Your task to perform on an android device: toggle javascript in the chrome app Image 0: 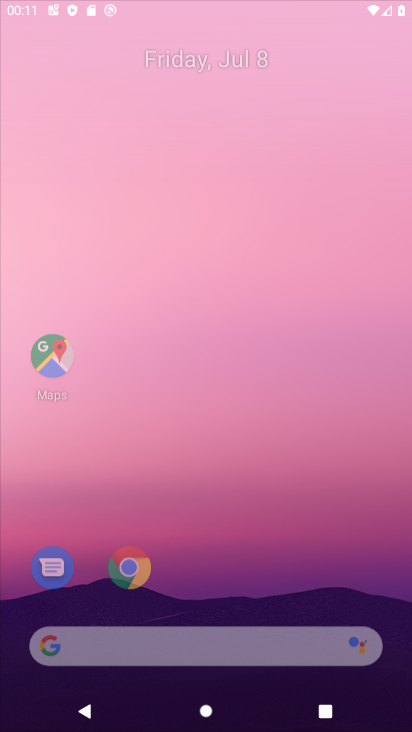
Step 0: click (191, 271)
Your task to perform on an android device: toggle javascript in the chrome app Image 1: 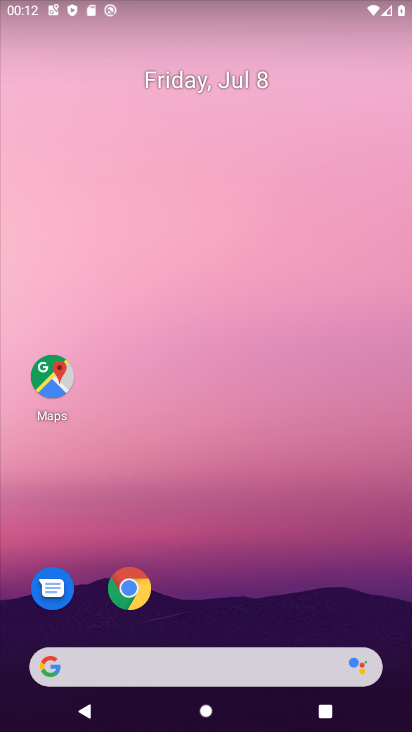
Step 1: drag from (183, 582) to (276, 215)
Your task to perform on an android device: toggle javascript in the chrome app Image 2: 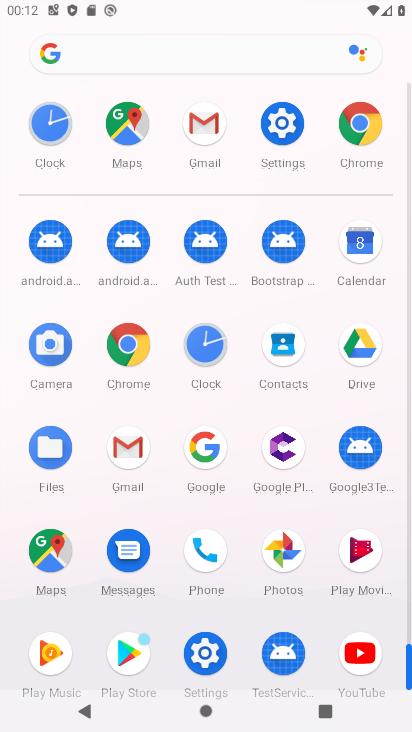
Step 2: drag from (246, 632) to (241, 204)
Your task to perform on an android device: toggle javascript in the chrome app Image 3: 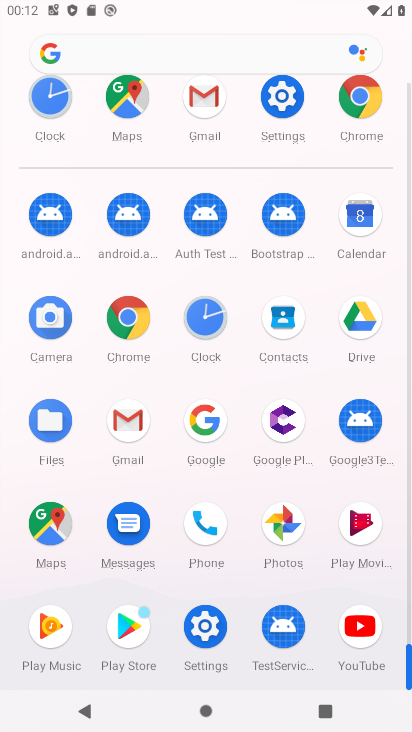
Step 3: click (360, 89)
Your task to perform on an android device: toggle javascript in the chrome app Image 4: 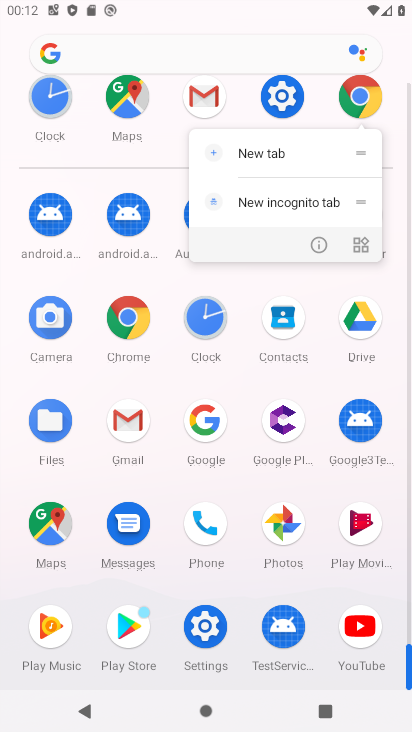
Step 4: click (308, 243)
Your task to perform on an android device: toggle javascript in the chrome app Image 5: 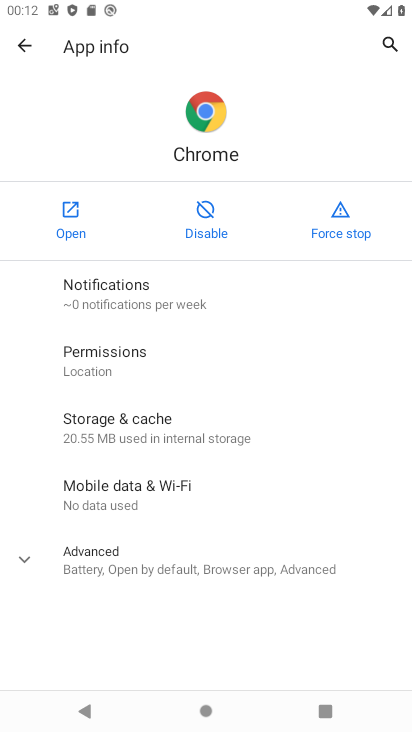
Step 5: click (63, 225)
Your task to perform on an android device: toggle javascript in the chrome app Image 6: 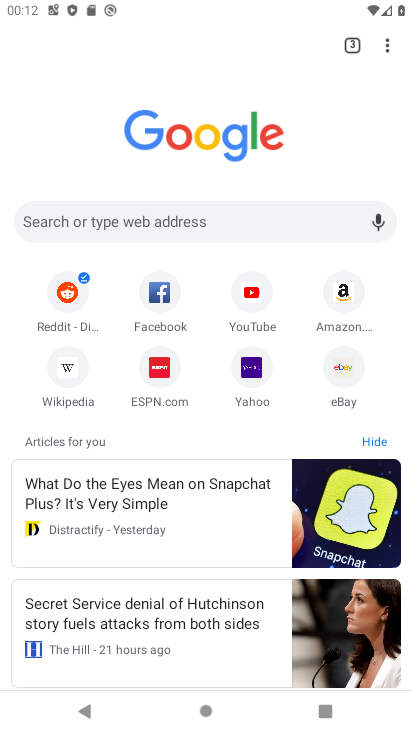
Step 6: click (382, 47)
Your task to perform on an android device: toggle javascript in the chrome app Image 7: 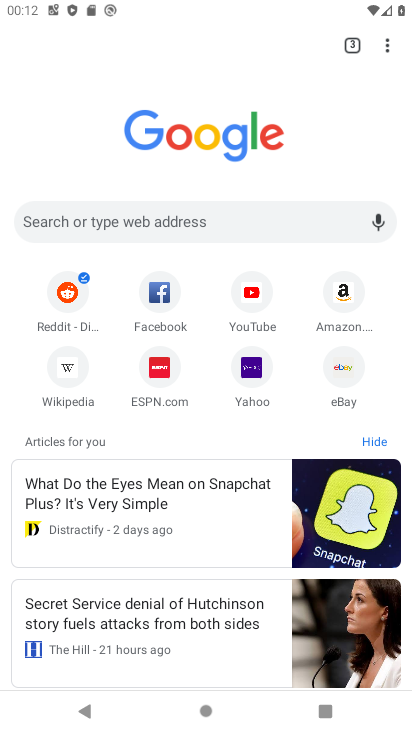
Step 7: click (389, 43)
Your task to perform on an android device: toggle javascript in the chrome app Image 8: 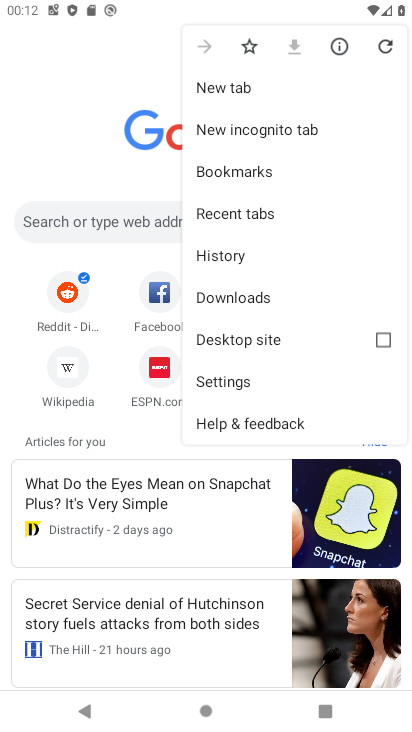
Step 8: drag from (229, 372) to (233, 115)
Your task to perform on an android device: toggle javascript in the chrome app Image 9: 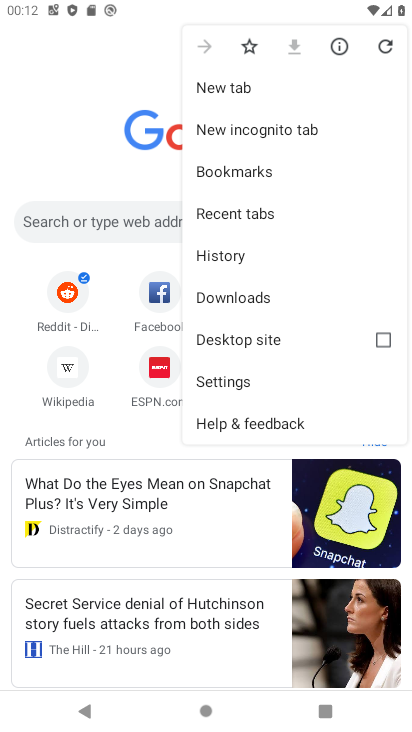
Step 9: click (218, 375)
Your task to perform on an android device: toggle javascript in the chrome app Image 10: 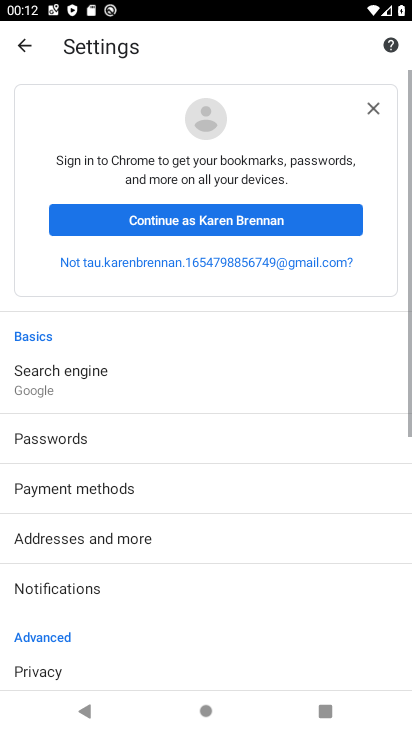
Step 10: drag from (139, 535) to (166, 268)
Your task to perform on an android device: toggle javascript in the chrome app Image 11: 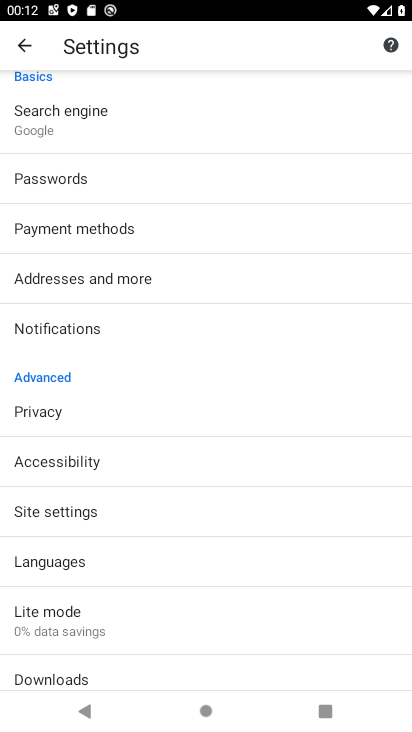
Step 11: drag from (141, 620) to (123, 395)
Your task to perform on an android device: toggle javascript in the chrome app Image 12: 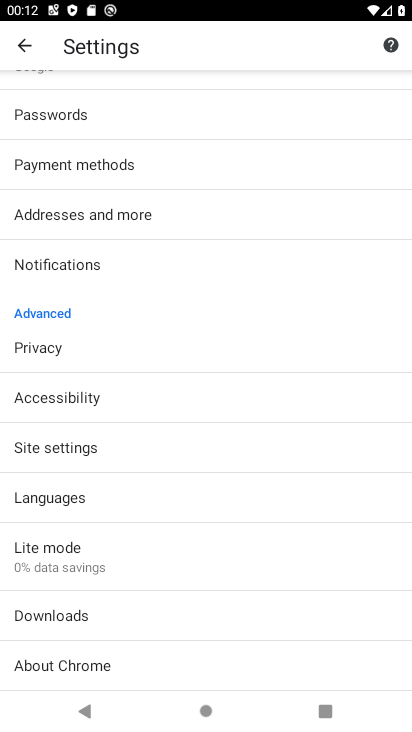
Step 12: drag from (133, 548) to (186, 236)
Your task to perform on an android device: toggle javascript in the chrome app Image 13: 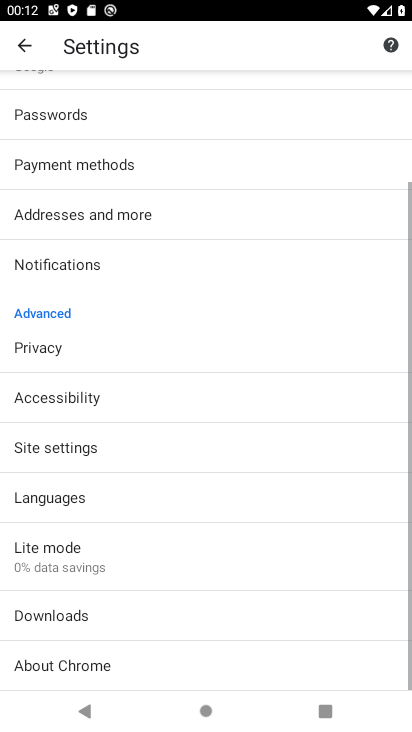
Step 13: click (88, 448)
Your task to perform on an android device: toggle javascript in the chrome app Image 14: 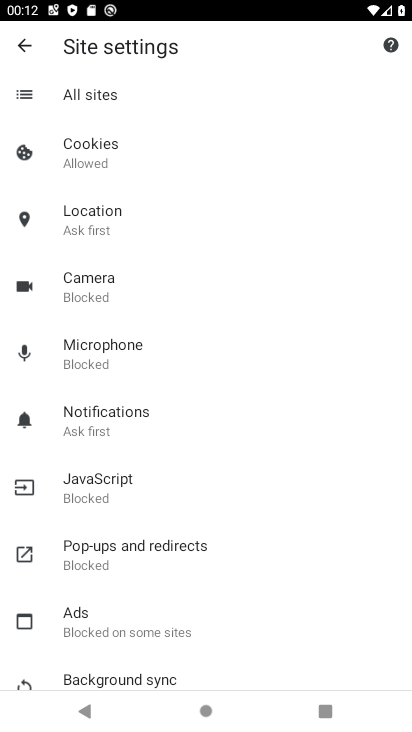
Step 14: click (125, 483)
Your task to perform on an android device: toggle javascript in the chrome app Image 15: 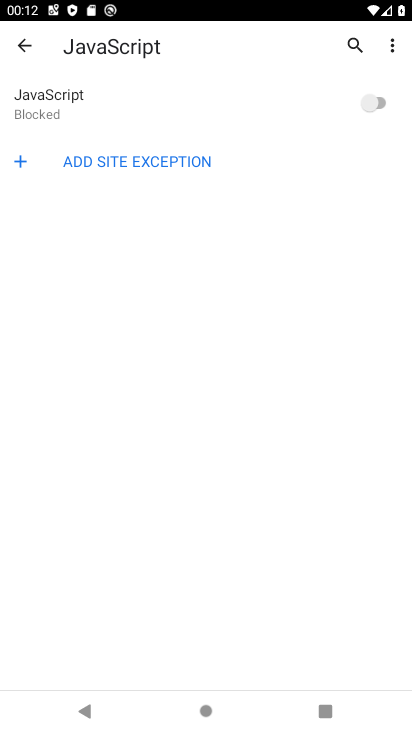
Step 15: drag from (234, 452) to (232, 216)
Your task to perform on an android device: toggle javascript in the chrome app Image 16: 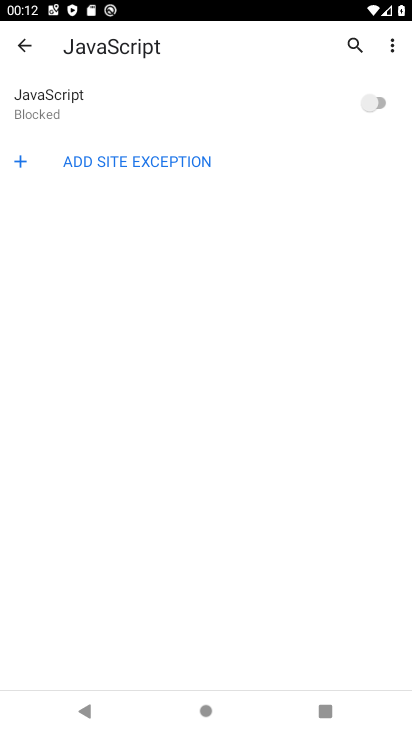
Step 16: drag from (207, 506) to (188, 306)
Your task to perform on an android device: toggle javascript in the chrome app Image 17: 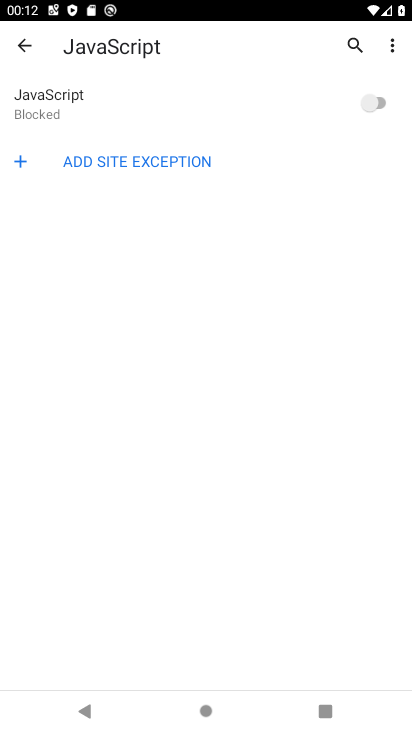
Step 17: click (335, 104)
Your task to perform on an android device: toggle javascript in the chrome app Image 18: 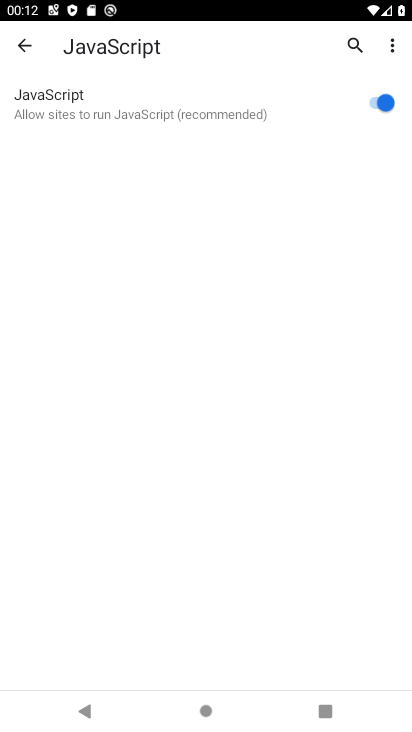
Step 18: task complete